Your task to perform on an android device: Check the weather Image 0: 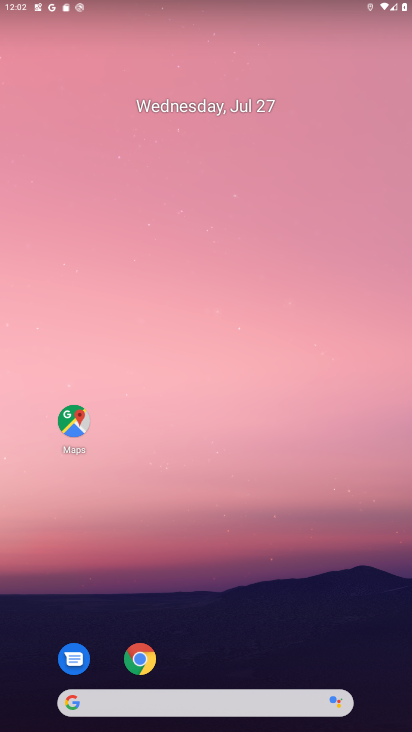
Step 0: drag from (245, 697) to (382, 12)
Your task to perform on an android device: Check the weather Image 1: 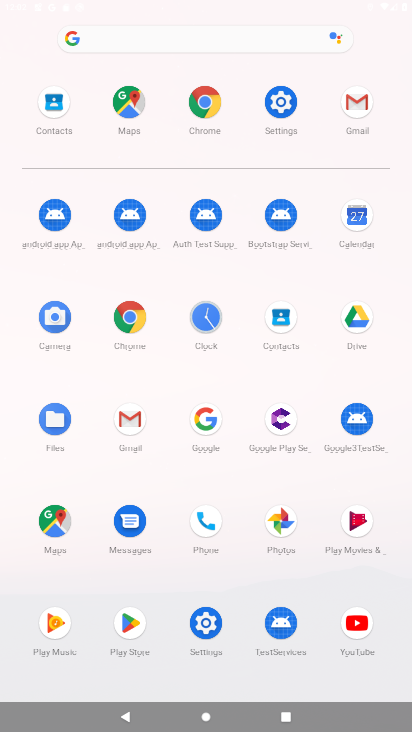
Step 1: click (132, 319)
Your task to perform on an android device: Check the weather Image 2: 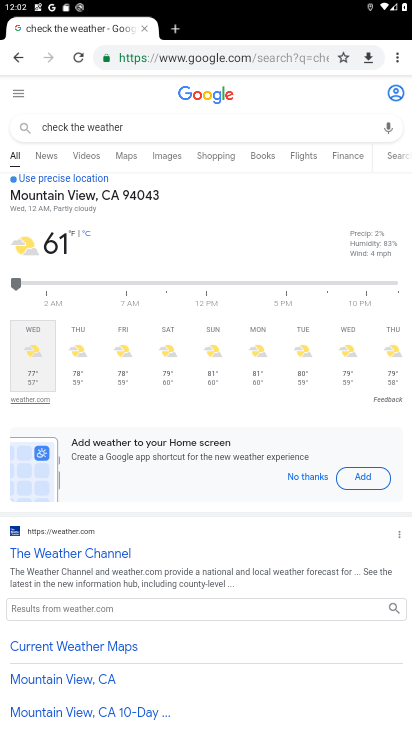
Step 2: click (279, 60)
Your task to perform on an android device: Check the weather Image 3: 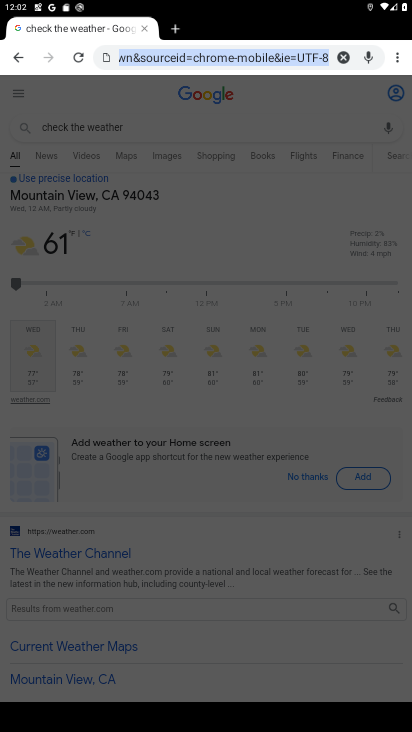
Step 3: type "check the weather"
Your task to perform on an android device: Check the weather Image 4: 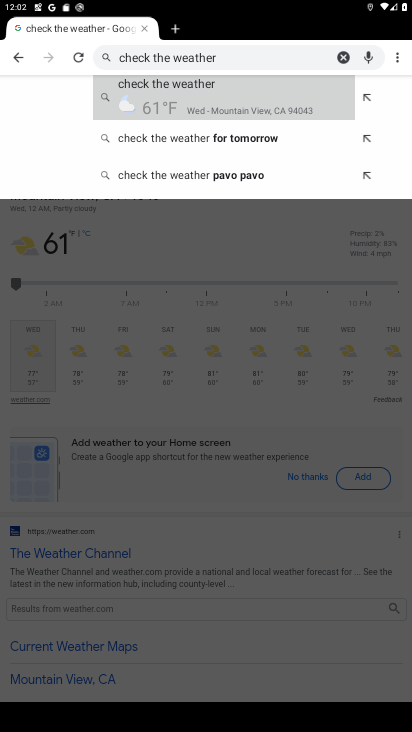
Step 4: click (331, 110)
Your task to perform on an android device: Check the weather Image 5: 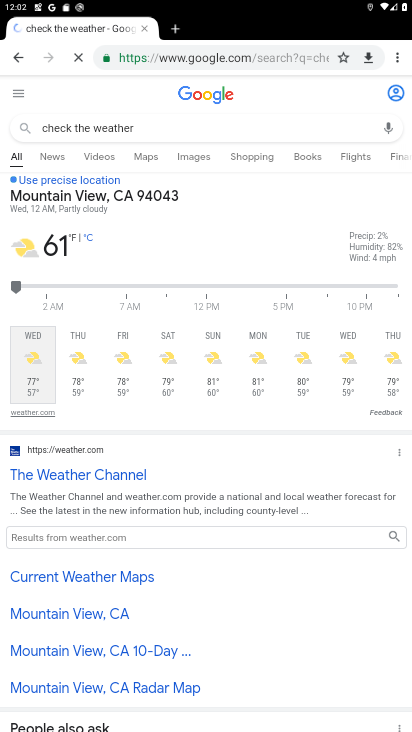
Step 5: task complete